Your task to perform on an android device: open a new tab in the chrome app Image 0: 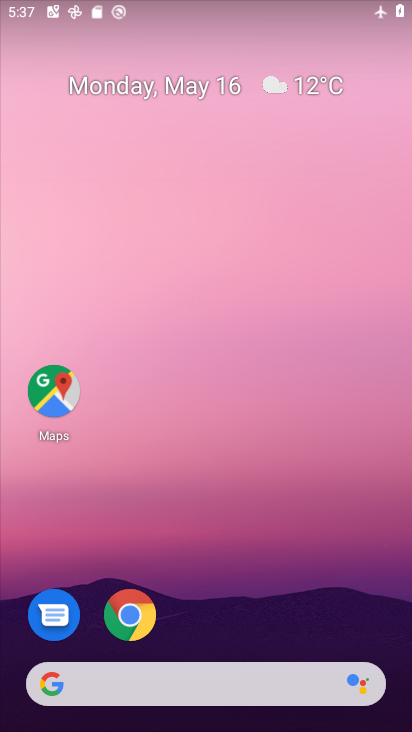
Step 0: click (122, 638)
Your task to perform on an android device: open a new tab in the chrome app Image 1: 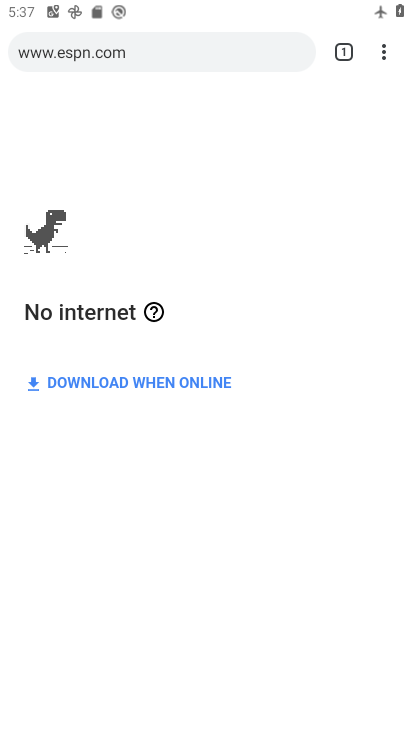
Step 1: click (339, 48)
Your task to perform on an android device: open a new tab in the chrome app Image 2: 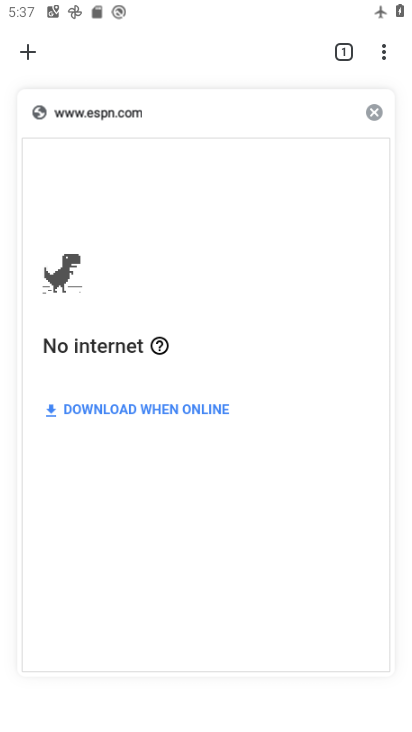
Step 2: click (25, 52)
Your task to perform on an android device: open a new tab in the chrome app Image 3: 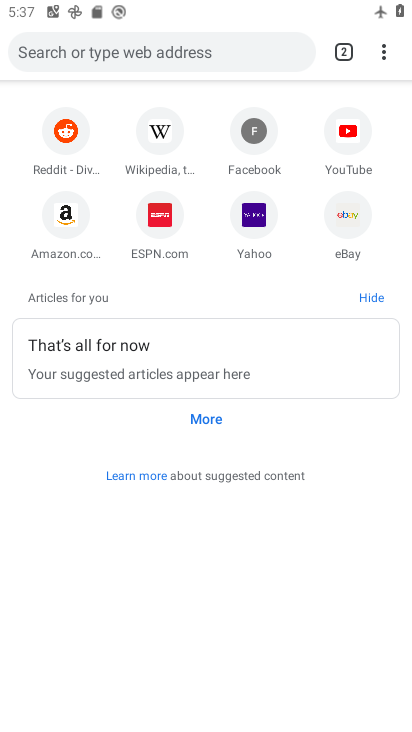
Step 3: task complete